Your task to perform on an android device: Search for the best rated drill on Lowes.com Image 0: 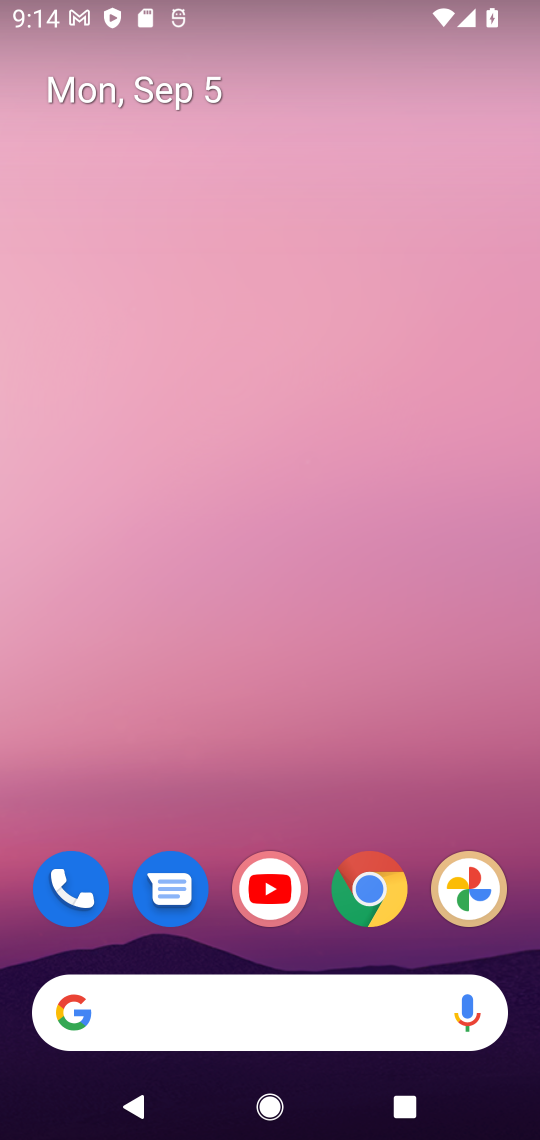
Step 0: click (262, 1023)
Your task to perform on an android device: Search for the best rated drill on Lowes.com Image 1: 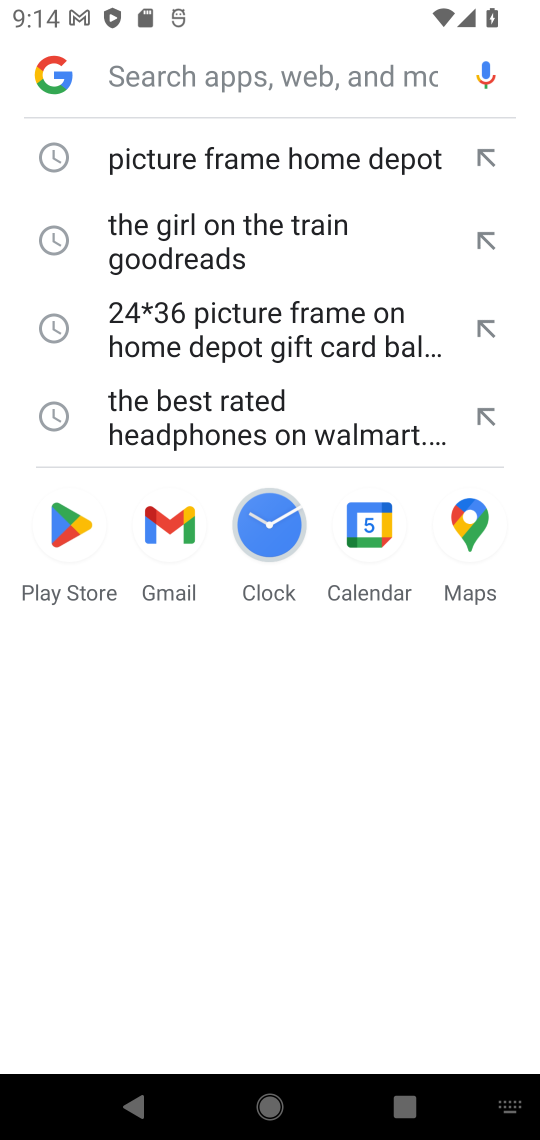
Step 1: type " the best rated drill on Lowes.com"
Your task to perform on an android device: Search for the best rated drill on Lowes.com Image 2: 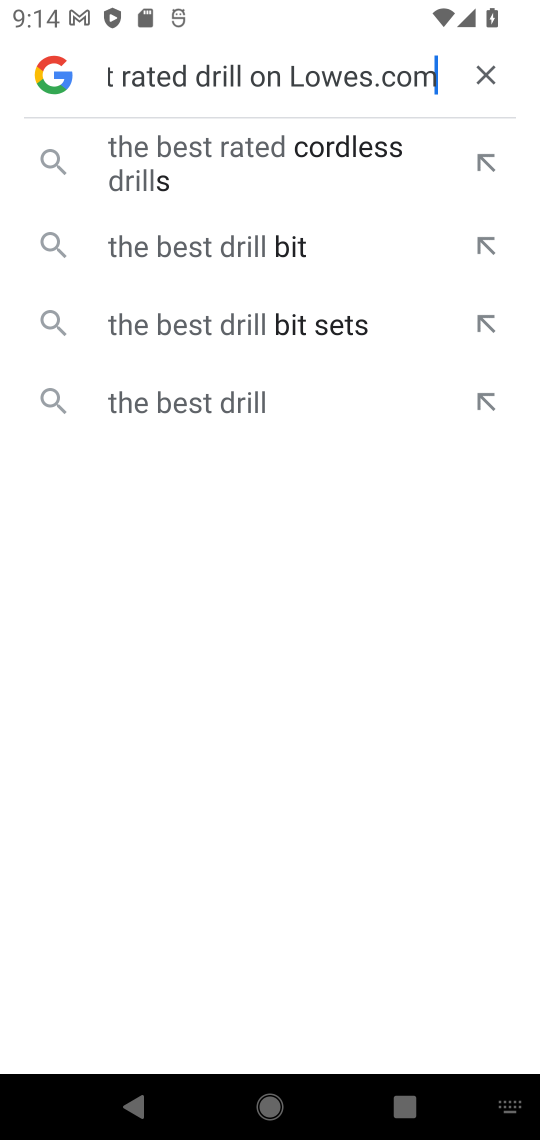
Step 2: click (226, 176)
Your task to perform on an android device: Search for the best rated drill on Lowes.com Image 3: 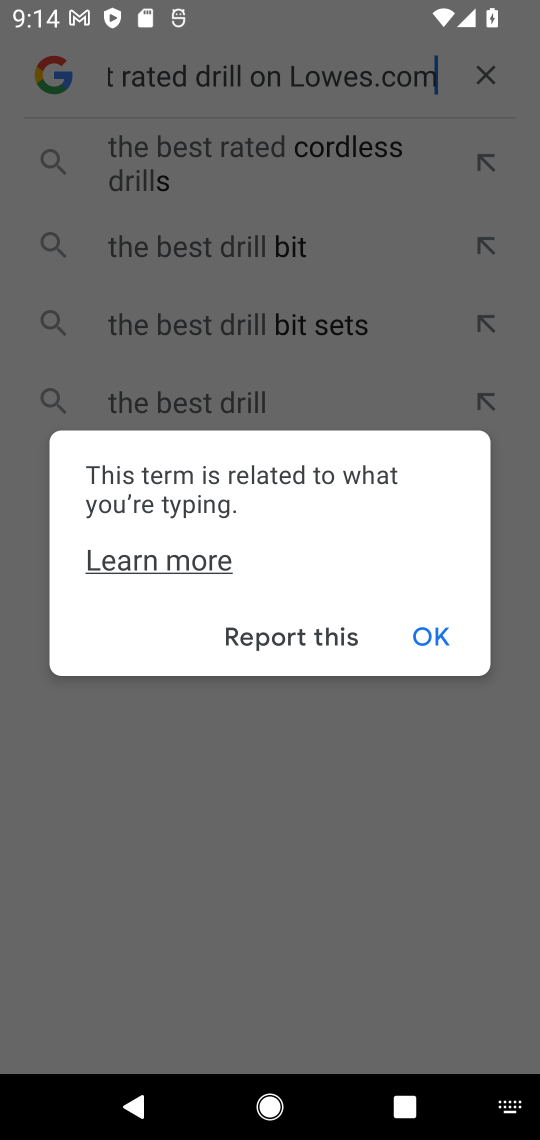
Step 3: click (434, 642)
Your task to perform on an android device: Search for the best rated drill on Lowes.com Image 4: 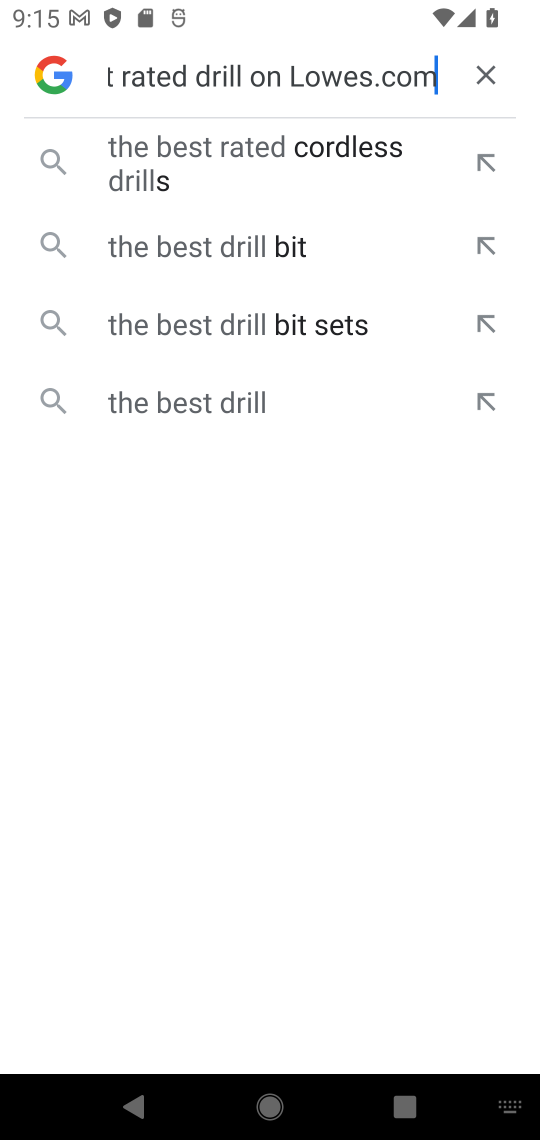
Step 4: click (233, 141)
Your task to perform on an android device: Search for the best rated drill on Lowes.com Image 5: 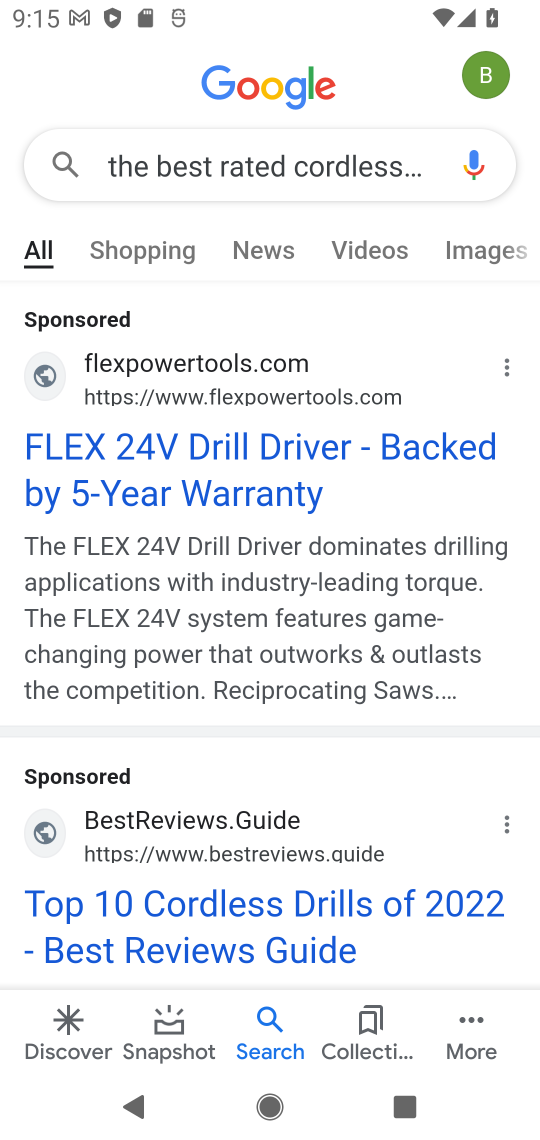
Step 5: click (341, 303)
Your task to perform on an android device: Search for the best rated drill on Lowes.com Image 6: 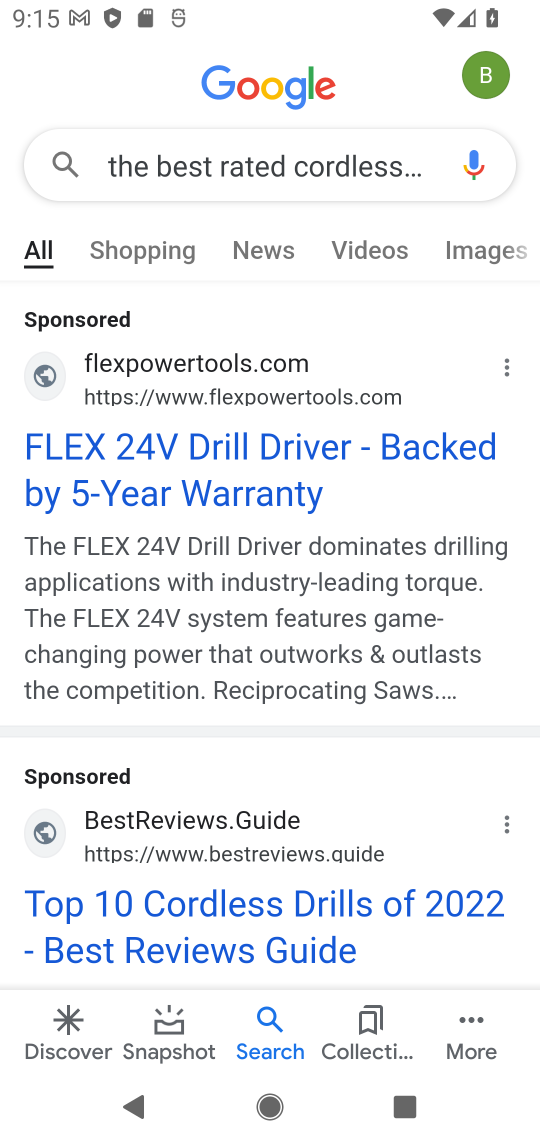
Step 6: task complete